Your task to perform on an android device: open app "NewsBreak: Local News & Alerts" Image 0: 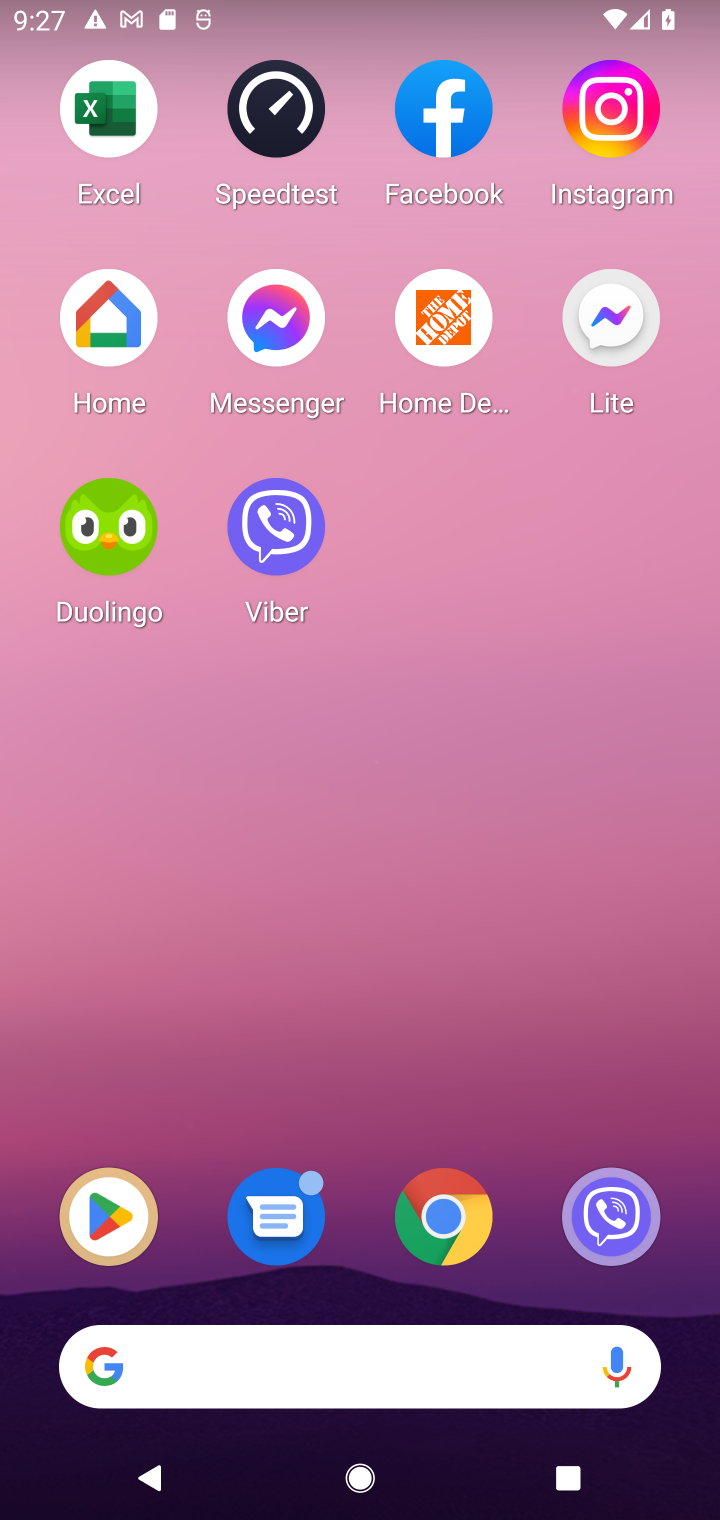
Step 0: click (97, 1230)
Your task to perform on an android device: open app "NewsBreak: Local News & Alerts" Image 1: 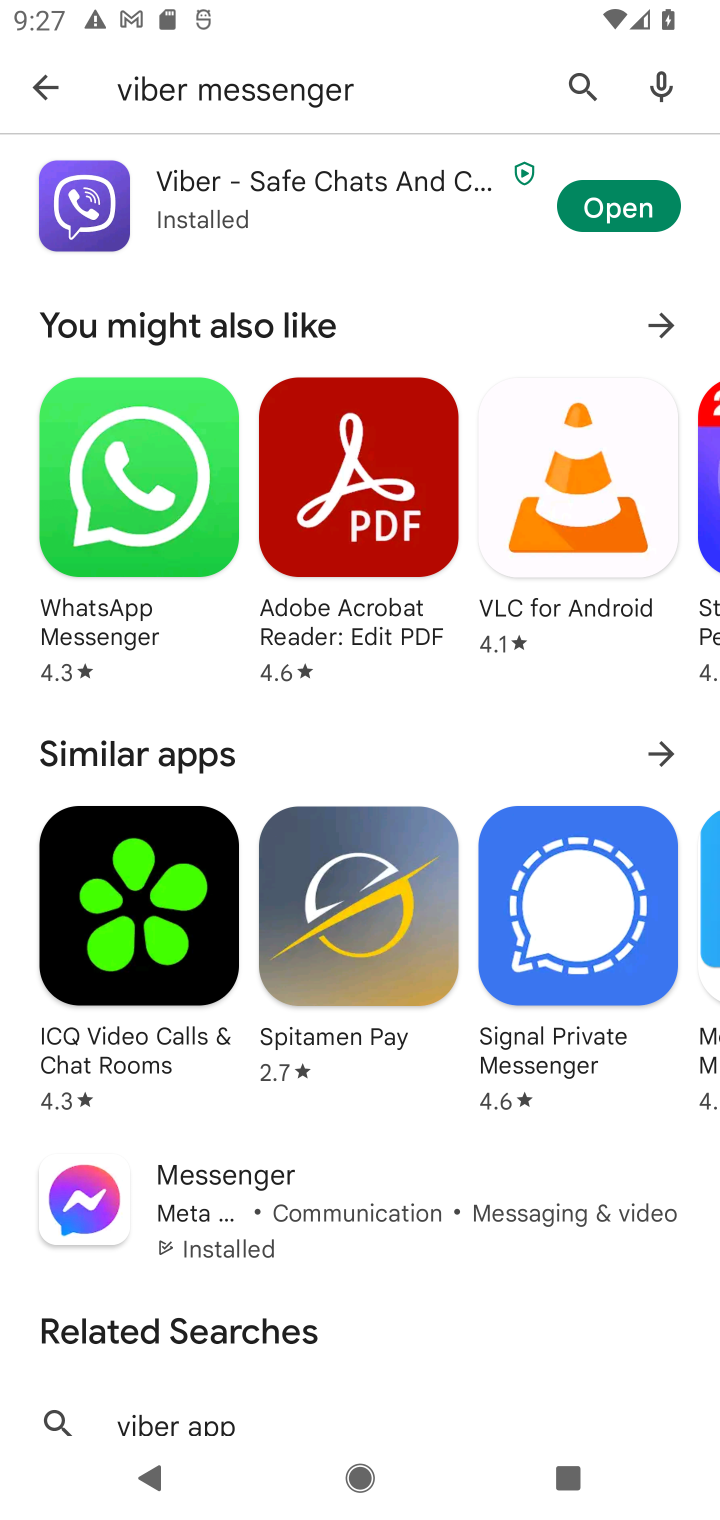
Step 1: click (581, 87)
Your task to perform on an android device: open app "NewsBreak: Local News & Alerts" Image 2: 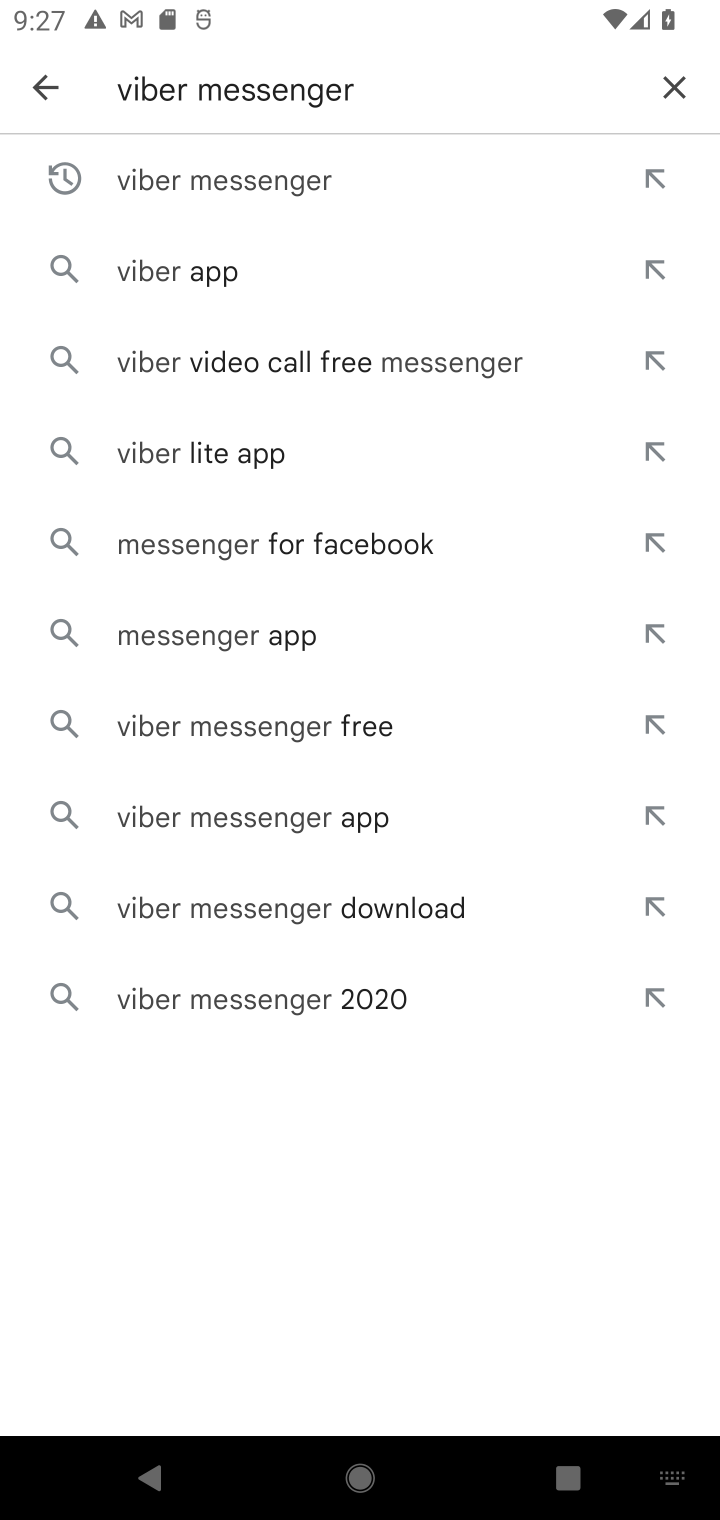
Step 2: click (659, 104)
Your task to perform on an android device: open app "NewsBreak: Local News & Alerts" Image 3: 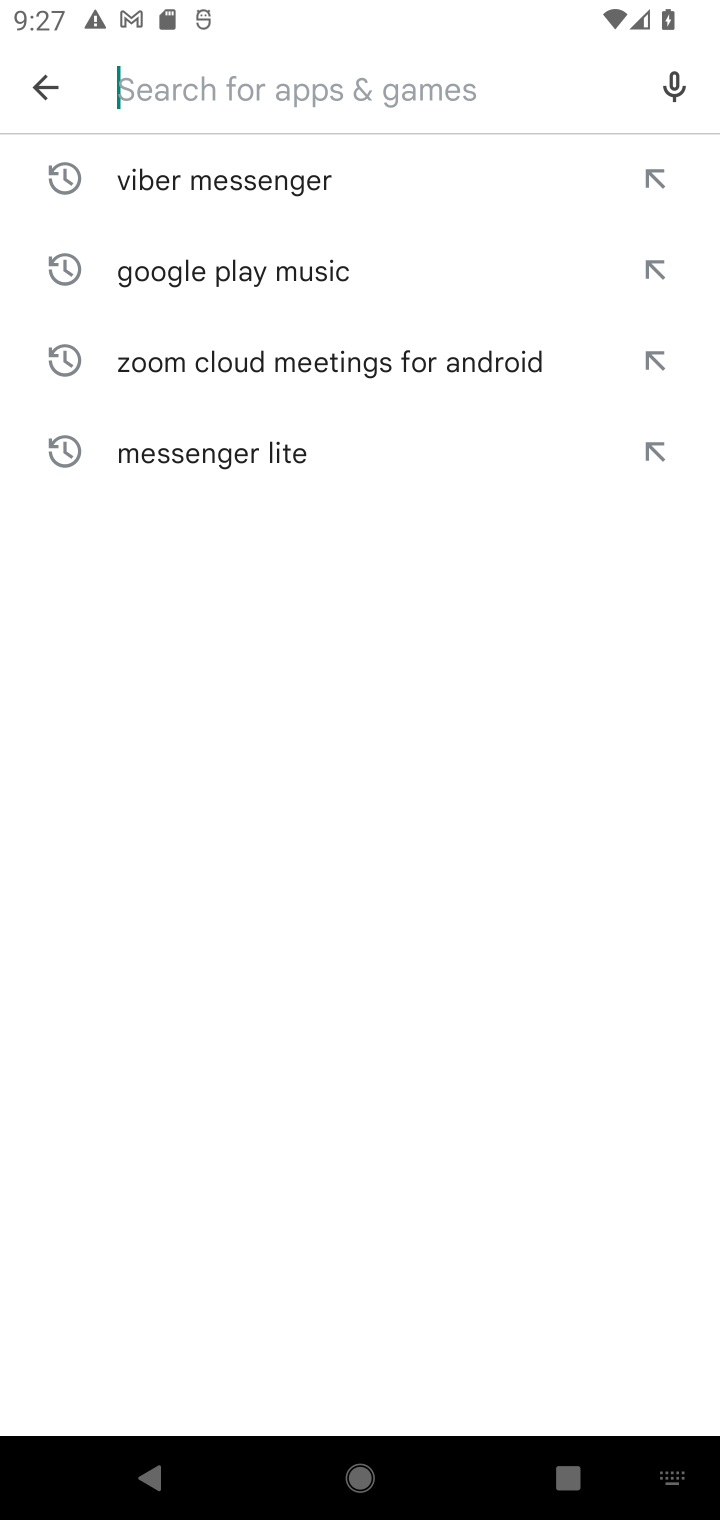
Step 3: type "NewsBreak: Local News & Alerts"
Your task to perform on an android device: open app "NewsBreak: Local News & Alerts" Image 4: 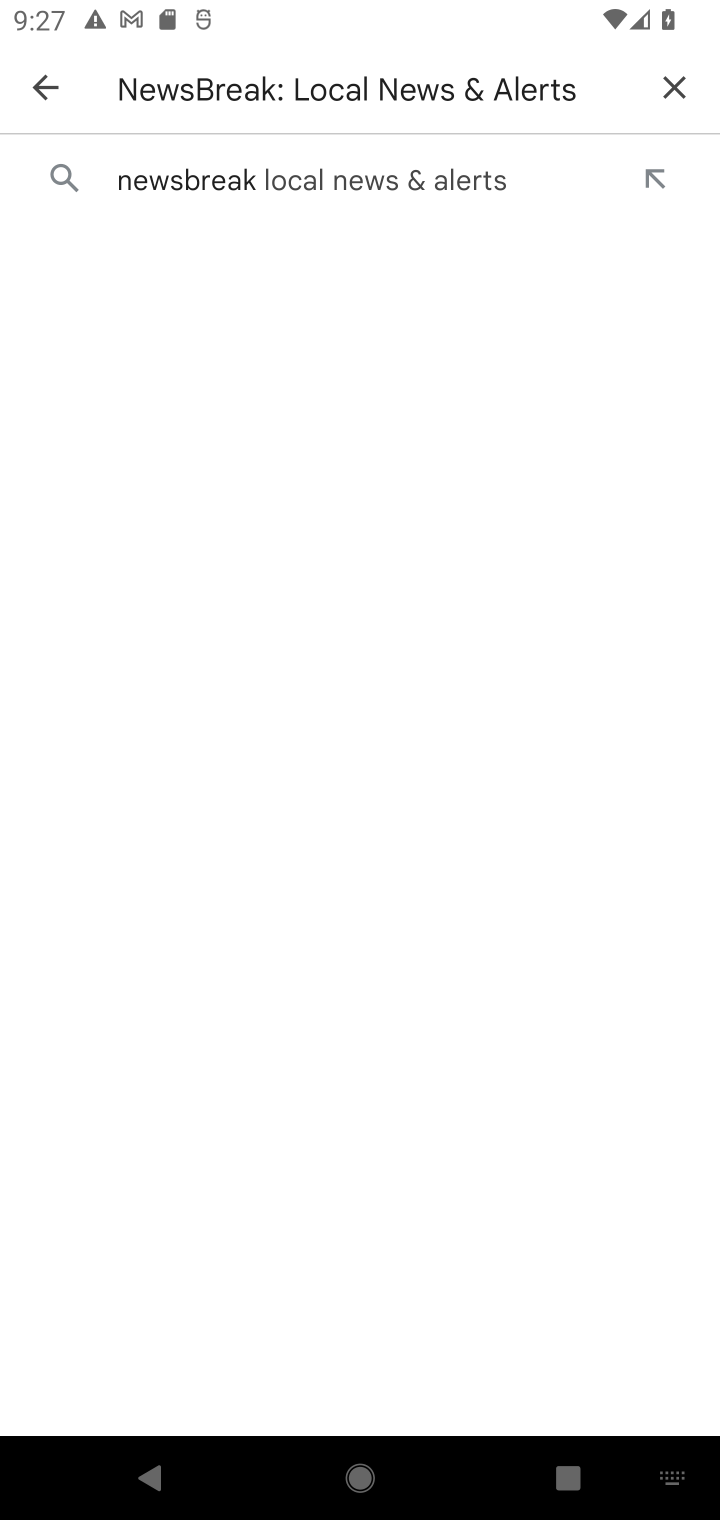
Step 4: click (257, 181)
Your task to perform on an android device: open app "NewsBreak: Local News & Alerts" Image 5: 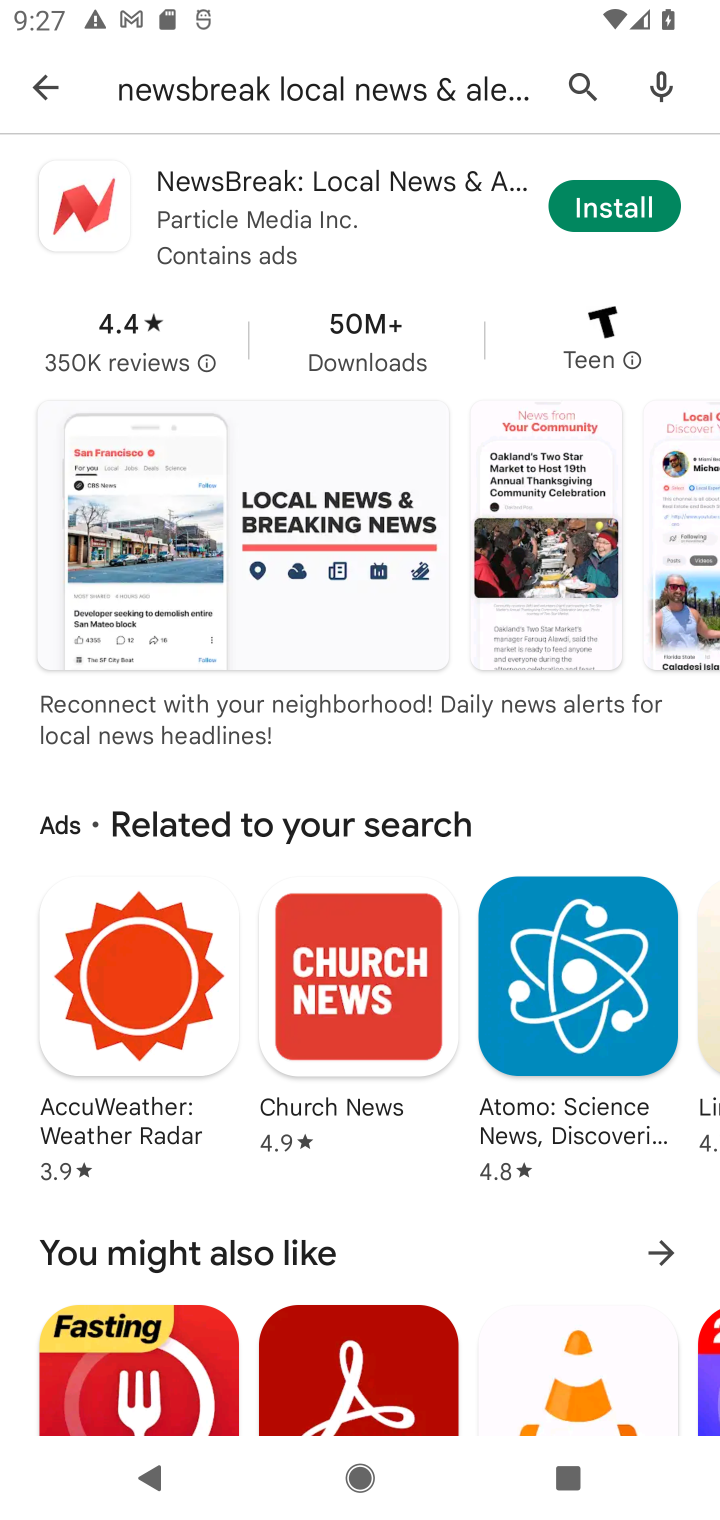
Step 5: task complete